Your task to perform on an android device: Open display settings Image 0: 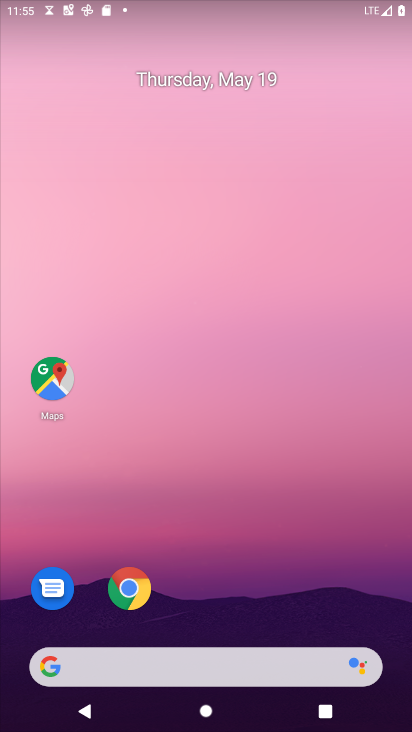
Step 0: click (186, 5)
Your task to perform on an android device: Open display settings Image 1: 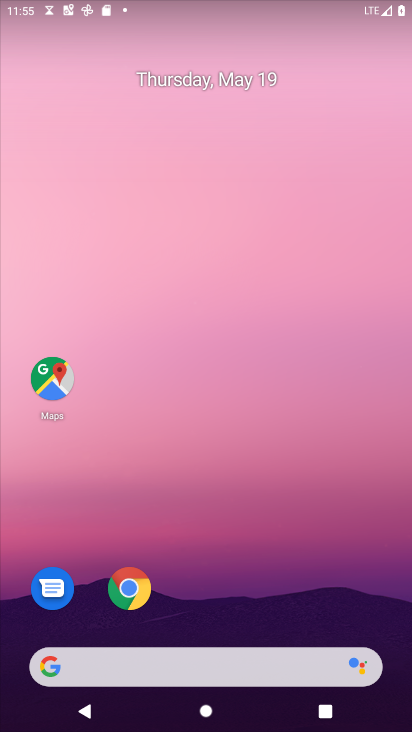
Step 1: drag from (260, 481) to (230, 11)
Your task to perform on an android device: Open display settings Image 2: 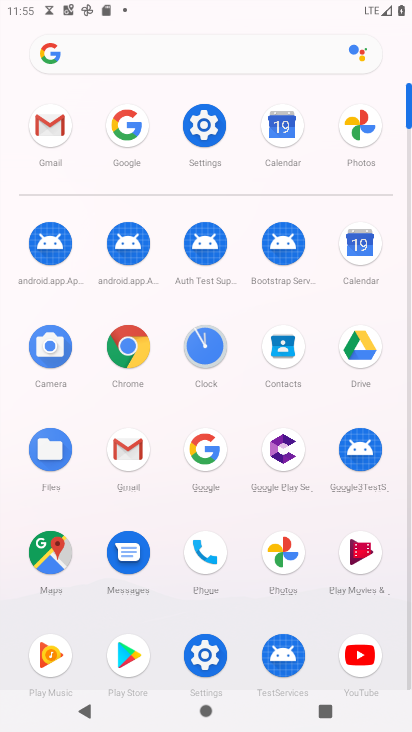
Step 2: click (195, 126)
Your task to perform on an android device: Open display settings Image 3: 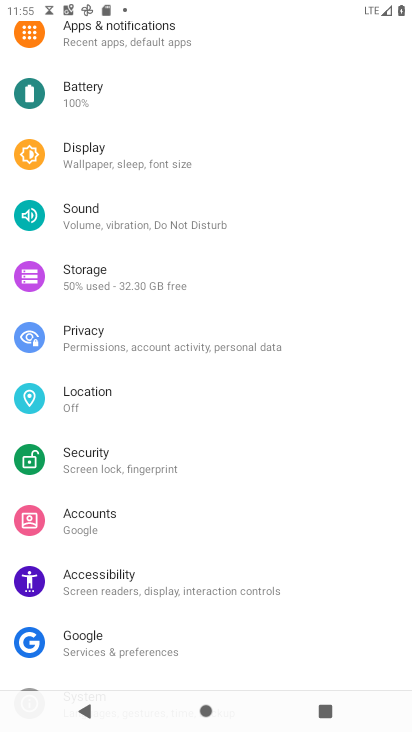
Step 3: click (186, 161)
Your task to perform on an android device: Open display settings Image 4: 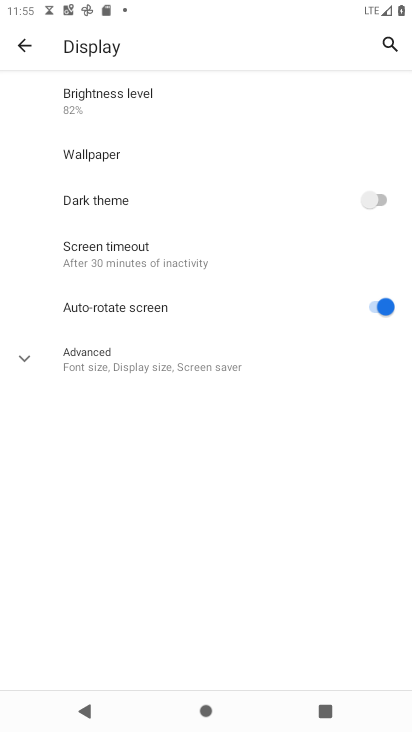
Step 4: task complete